Your task to perform on an android device: open the mobile data screen to see how much data has been used Image 0: 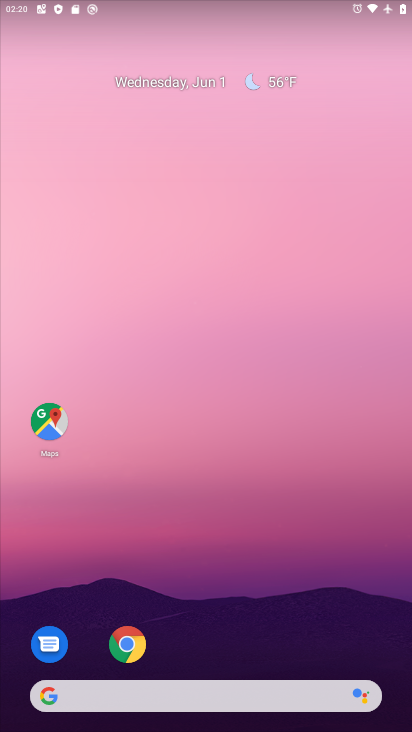
Step 0: drag from (146, 644) to (170, 397)
Your task to perform on an android device: open the mobile data screen to see how much data has been used Image 1: 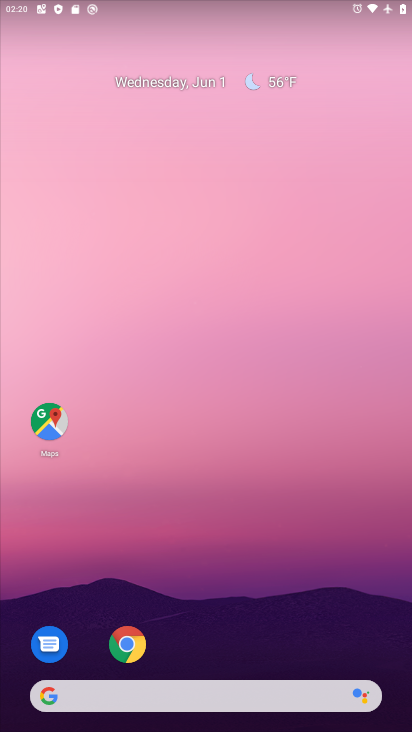
Step 1: drag from (261, 681) to (187, 133)
Your task to perform on an android device: open the mobile data screen to see how much data has been used Image 2: 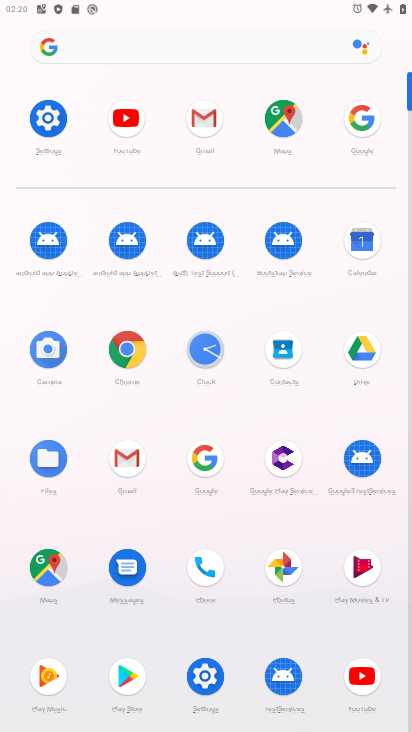
Step 2: click (43, 125)
Your task to perform on an android device: open the mobile data screen to see how much data has been used Image 3: 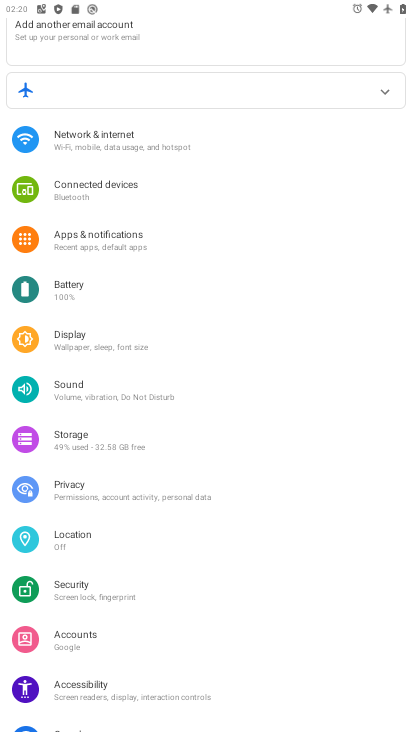
Step 3: click (72, 150)
Your task to perform on an android device: open the mobile data screen to see how much data has been used Image 4: 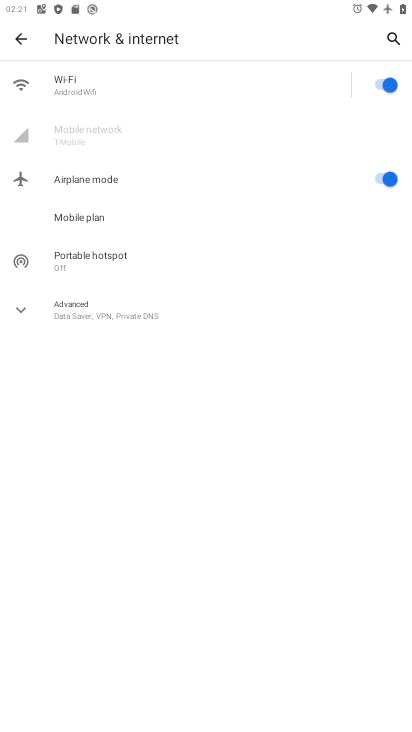
Step 4: click (86, 126)
Your task to perform on an android device: open the mobile data screen to see how much data has been used Image 5: 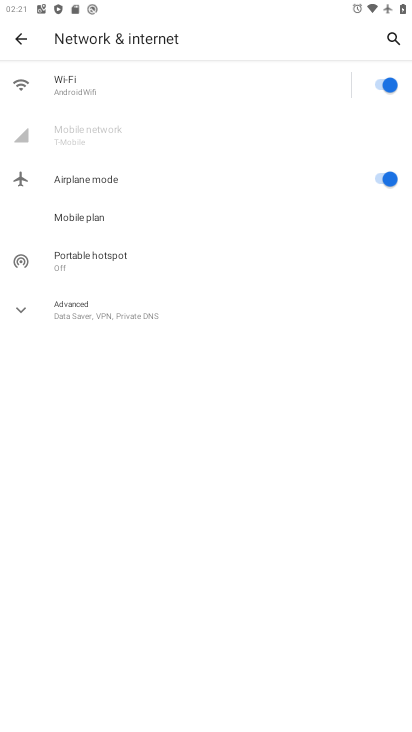
Step 5: click (380, 175)
Your task to perform on an android device: open the mobile data screen to see how much data has been used Image 6: 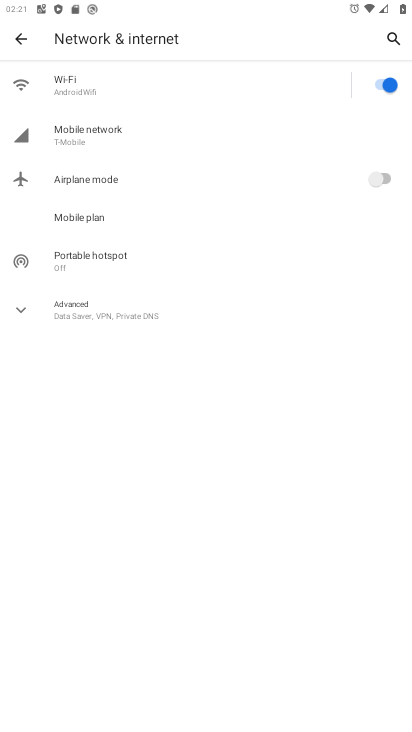
Step 6: click (124, 140)
Your task to perform on an android device: open the mobile data screen to see how much data has been used Image 7: 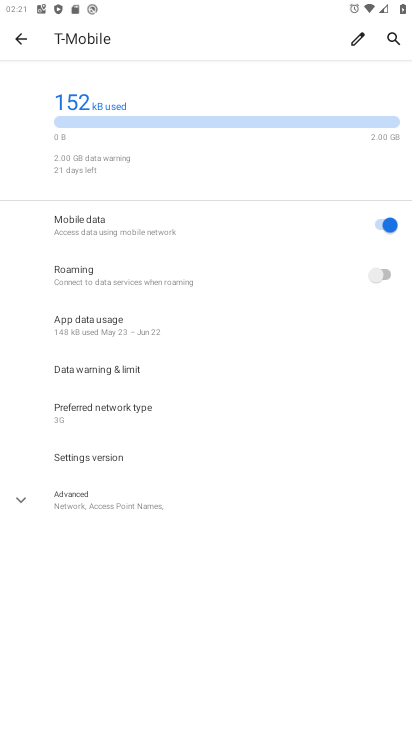
Step 7: task complete